Your task to perform on an android device: refresh tabs in the chrome app Image 0: 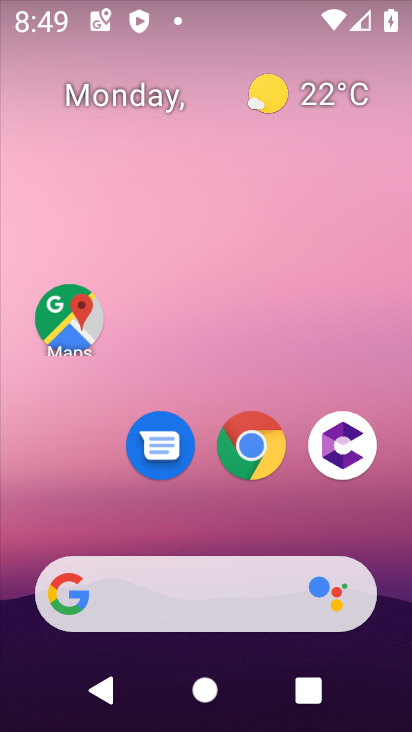
Step 0: click (253, 436)
Your task to perform on an android device: refresh tabs in the chrome app Image 1: 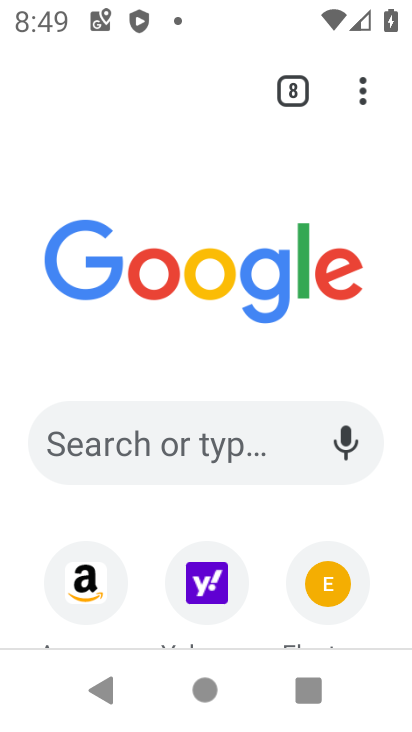
Step 1: click (362, 118)
Your task to perform on an android device: refresh tabs in the chrome app Image 2: 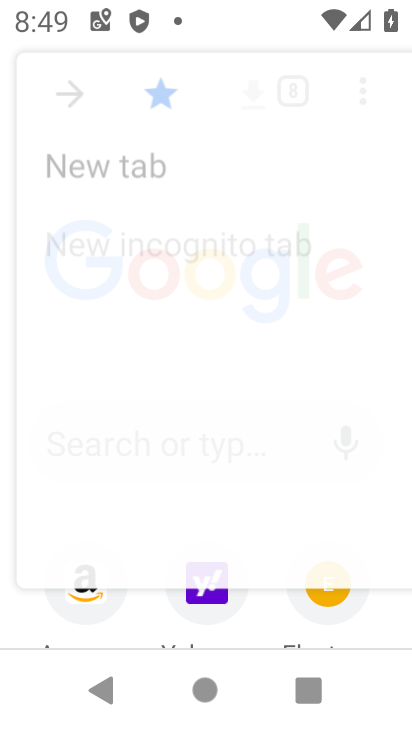
Step 2: drag from (362, 118) to (351, 371)
Your task to perform on an android device: refresh tabs in the chrome app Image 3: 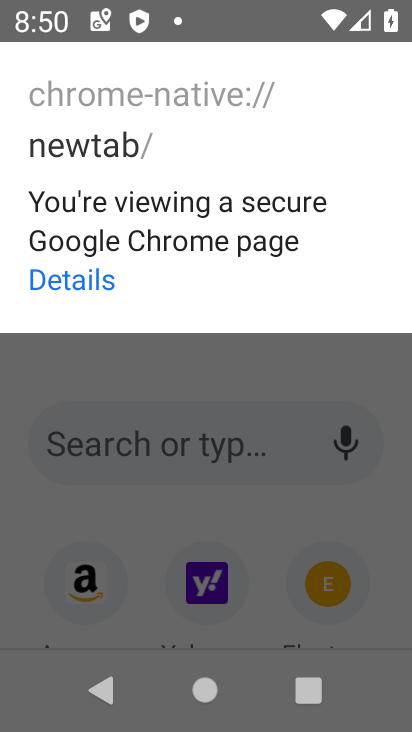
Step 3: click (344, 367)
Your task to perform on an android device: refresh tabs in the chrome app Image 4: 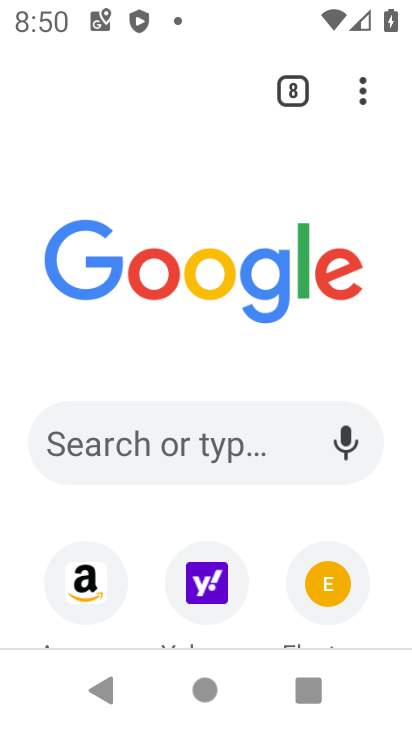
Step 4: task complete